Your task to perform on an android device: star an email in the gmail app Image 0: 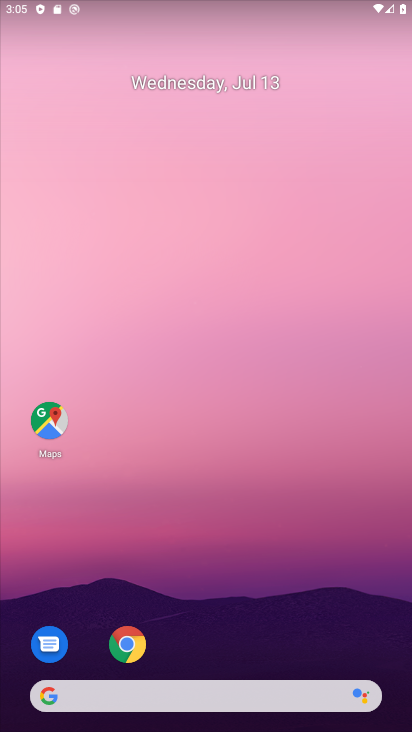
Step 0: drag from (372, 650) to (263, 239)
Your task to perform on an android device: star an email in the gmail app Image 1: 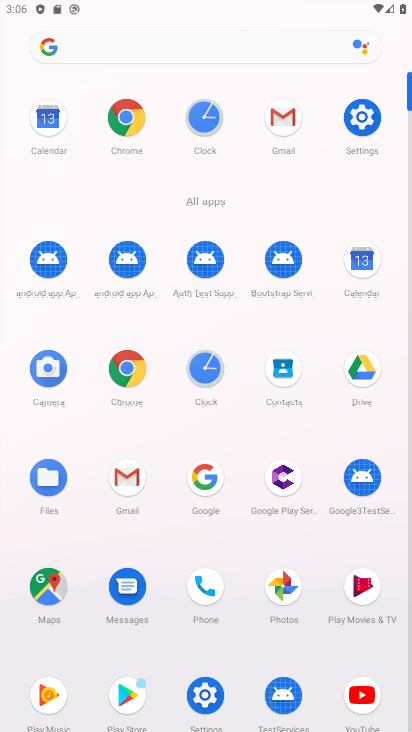
Step 1: click (289, 115)
Your task to perform on an android device: star an email in the gmail app Image 2: 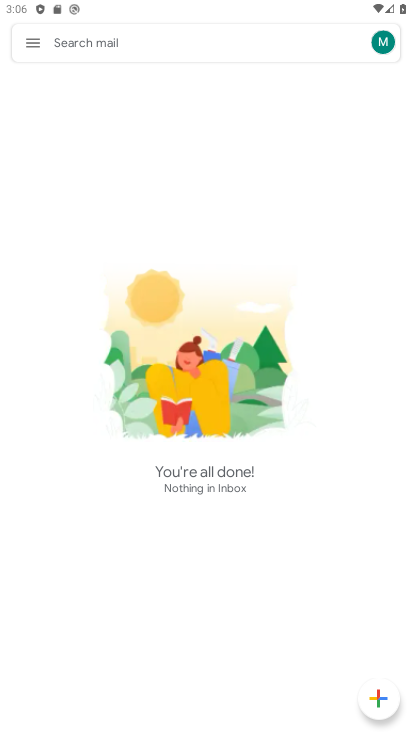
Step 2: click (32, 42)
Your task to perform on an android device: star an email in the gmail app Image 3: 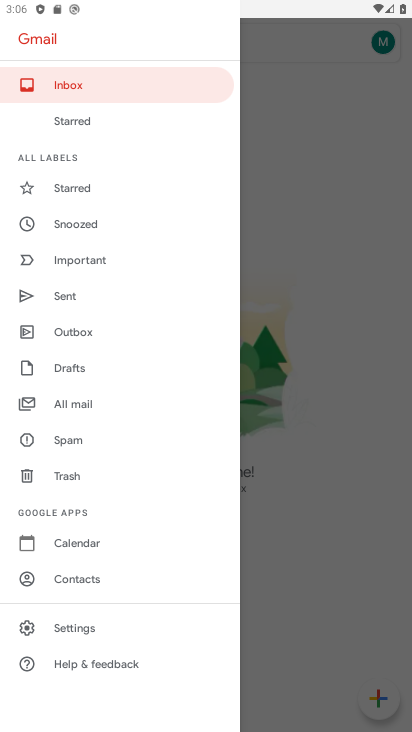
Step 3: click (314, 214)
Your task to perform on an android device: star an email in the gmail app Image 4: 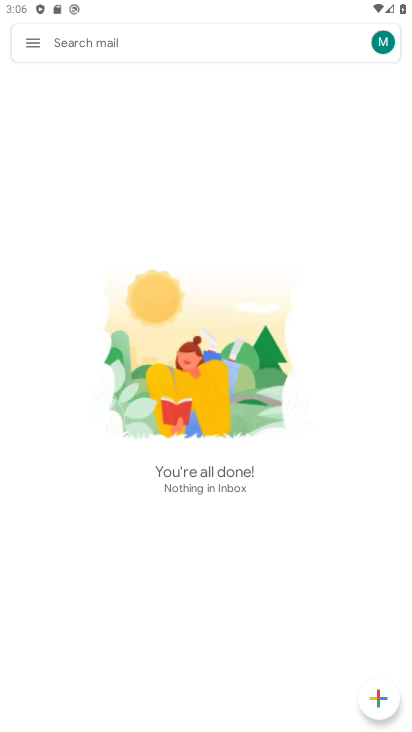
Step 4: task complete